Your task to perform on an android device: turn on sleep mode Image 0: 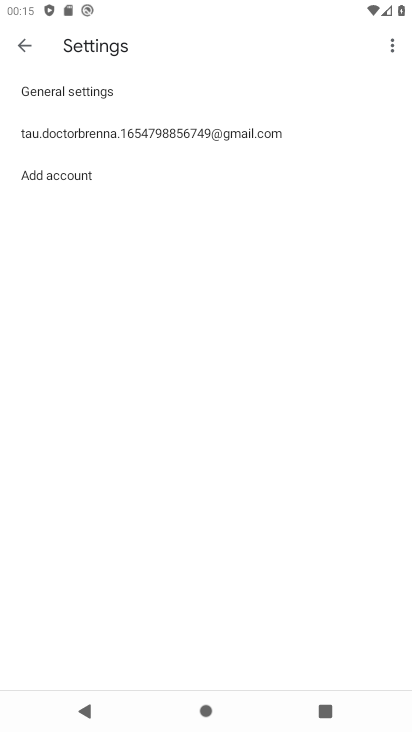
Step 0: press back button
Your task to perform on an android device: turn on sleep mode Image 1: 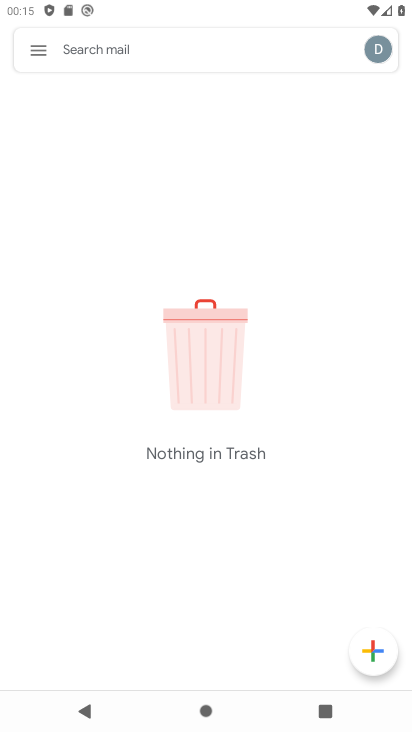
Step 1: press back button
Your task to perform on an android device: turn on sleep mode Image 2: 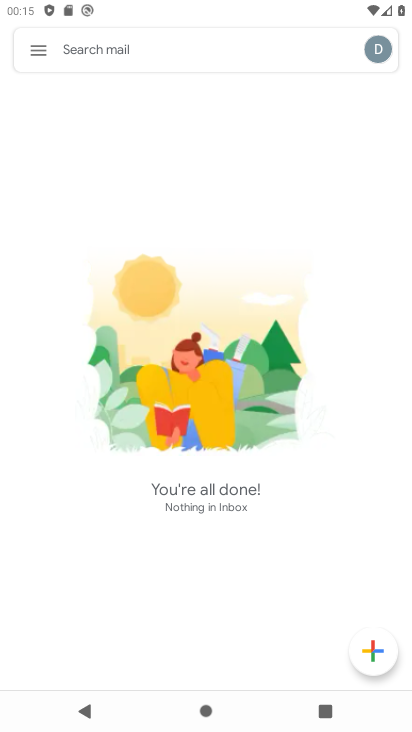
Step 2: press back button
Your task to perform on an android device: turn on sleep mode Image 3: 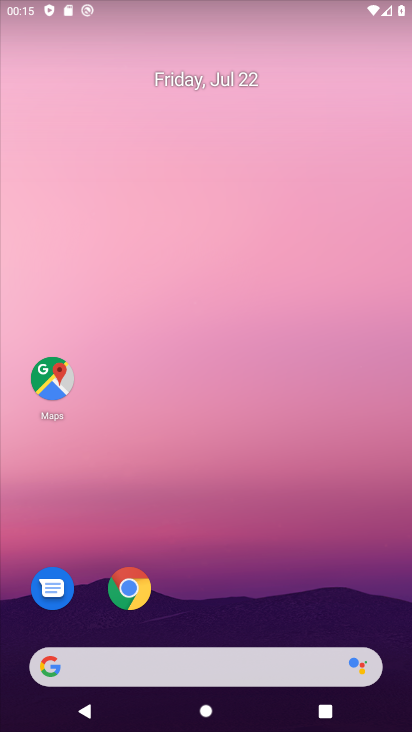
Step 3: drag from (207, 598) to (293, 16)
Your task to perform on an android device: turn on sleep mode Image 4: 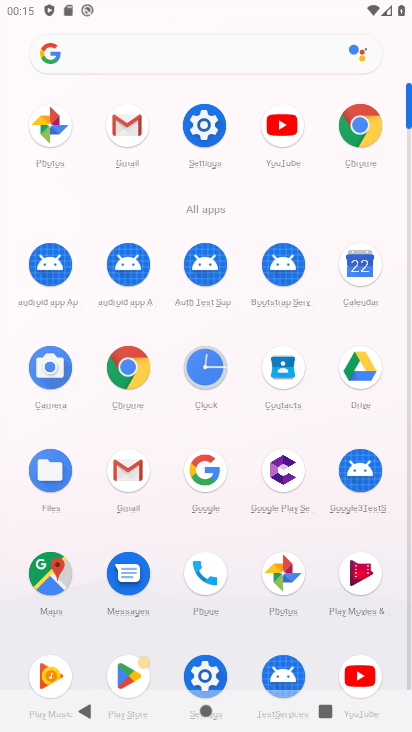
Step 4: click (207, 127)
Your task to perform on an android device: turn on sleep mode Image 5: 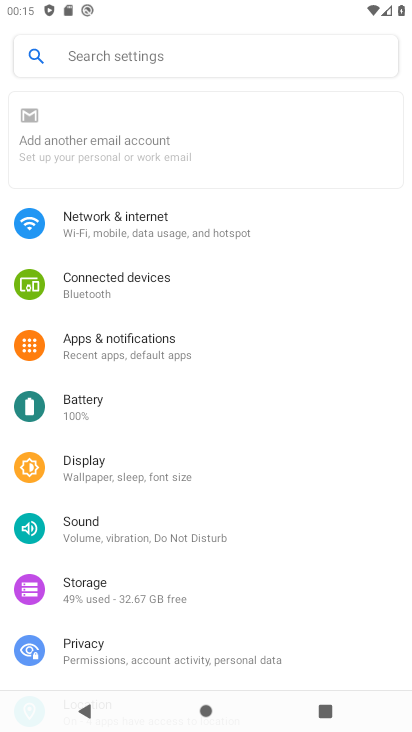
Step 5: click (135, 49)
Your task to perform on an android device: turn on sleep mode Image 6: 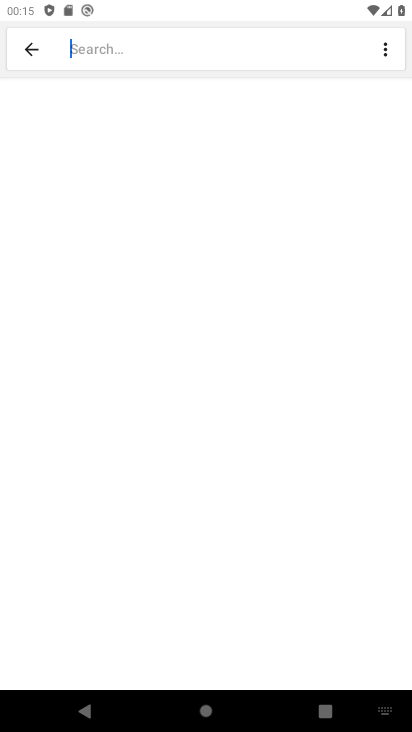
Step 6: type "sleep mode"
Your task to perform on an android device: turn on sleep mode Image 7: 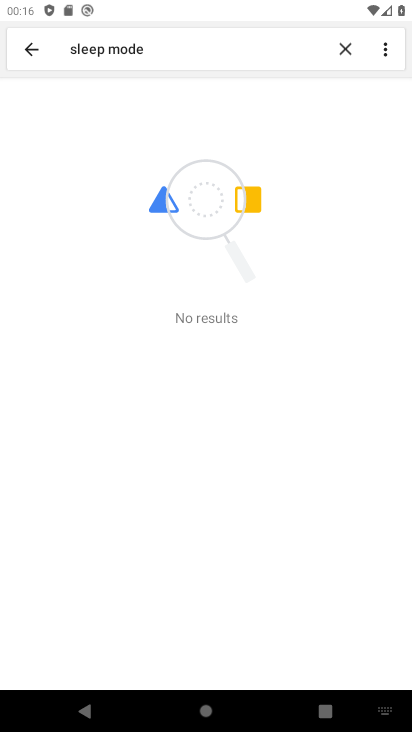
Step 7: task complete